Your task to perform on an android device: Show the shopping cart on amazon. Add "jbl charge 4" to the cart on amazon, then select checkout. Image 0: 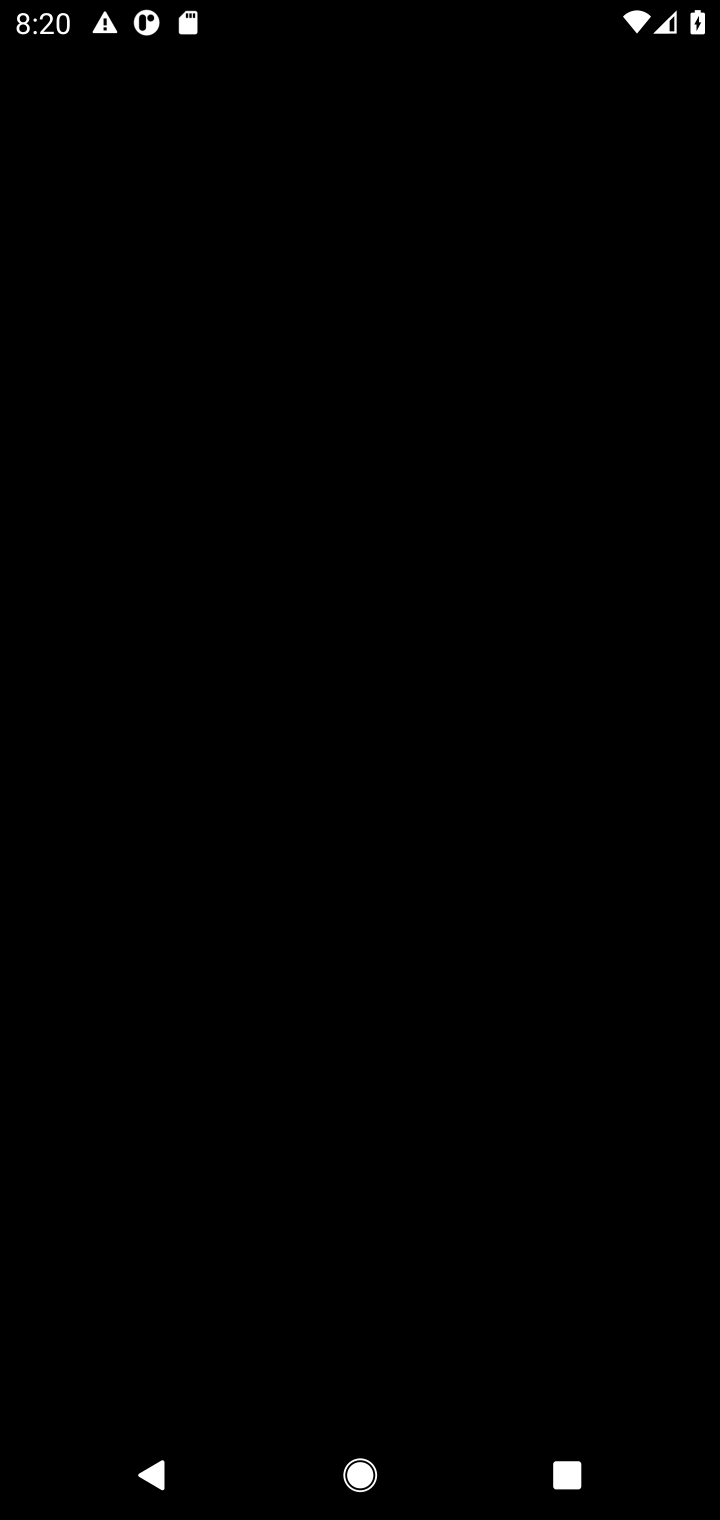
Step 0: press home button
Your task to perform on an android device: Show the shopping cart on amazon. Add "jbl charge 4" to the cart on amazon, then select checkout. Image 1: 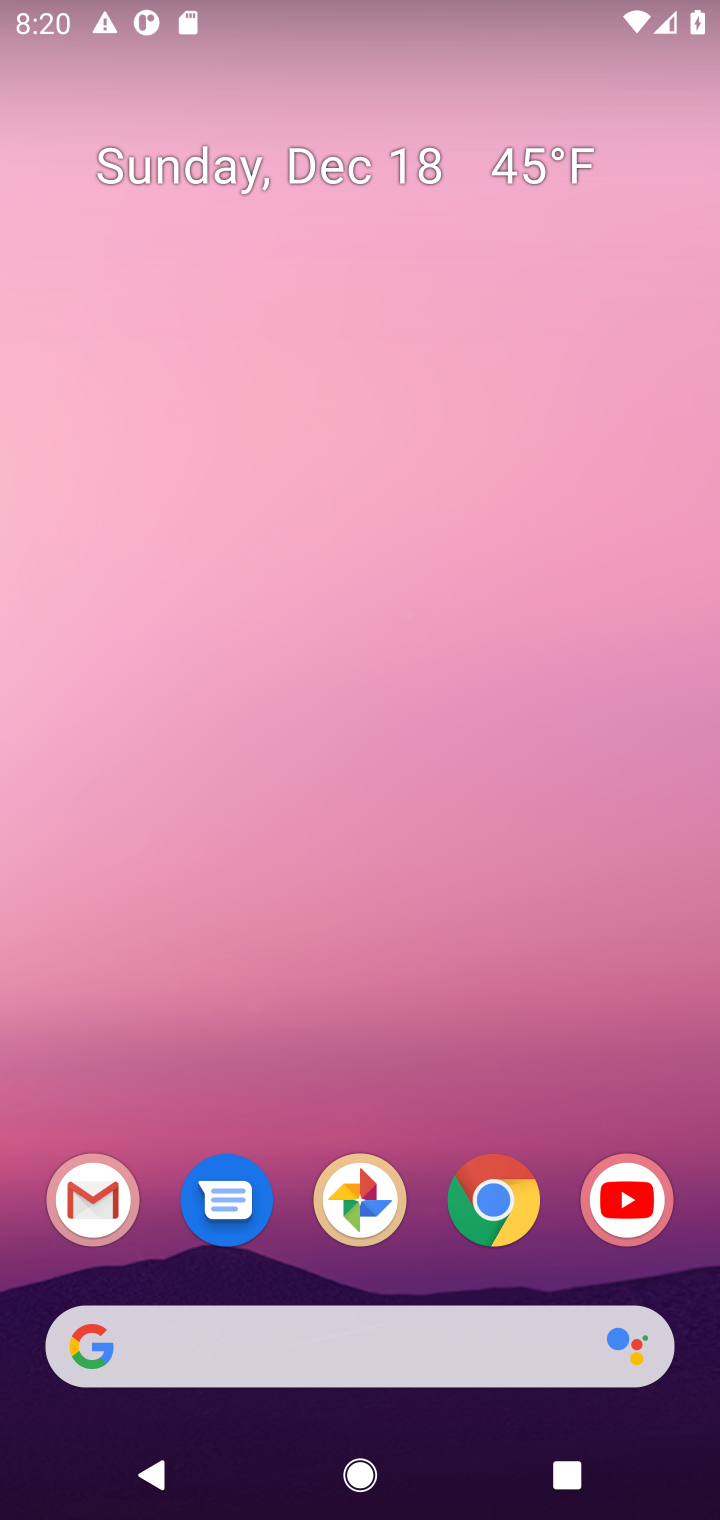
Step 1: click (502, 1210)
Your task to perform on an android device: Show the shopping cart on amazon. Add "jbl charge 4" to the cart on amazon, then select checkout. Image 2: 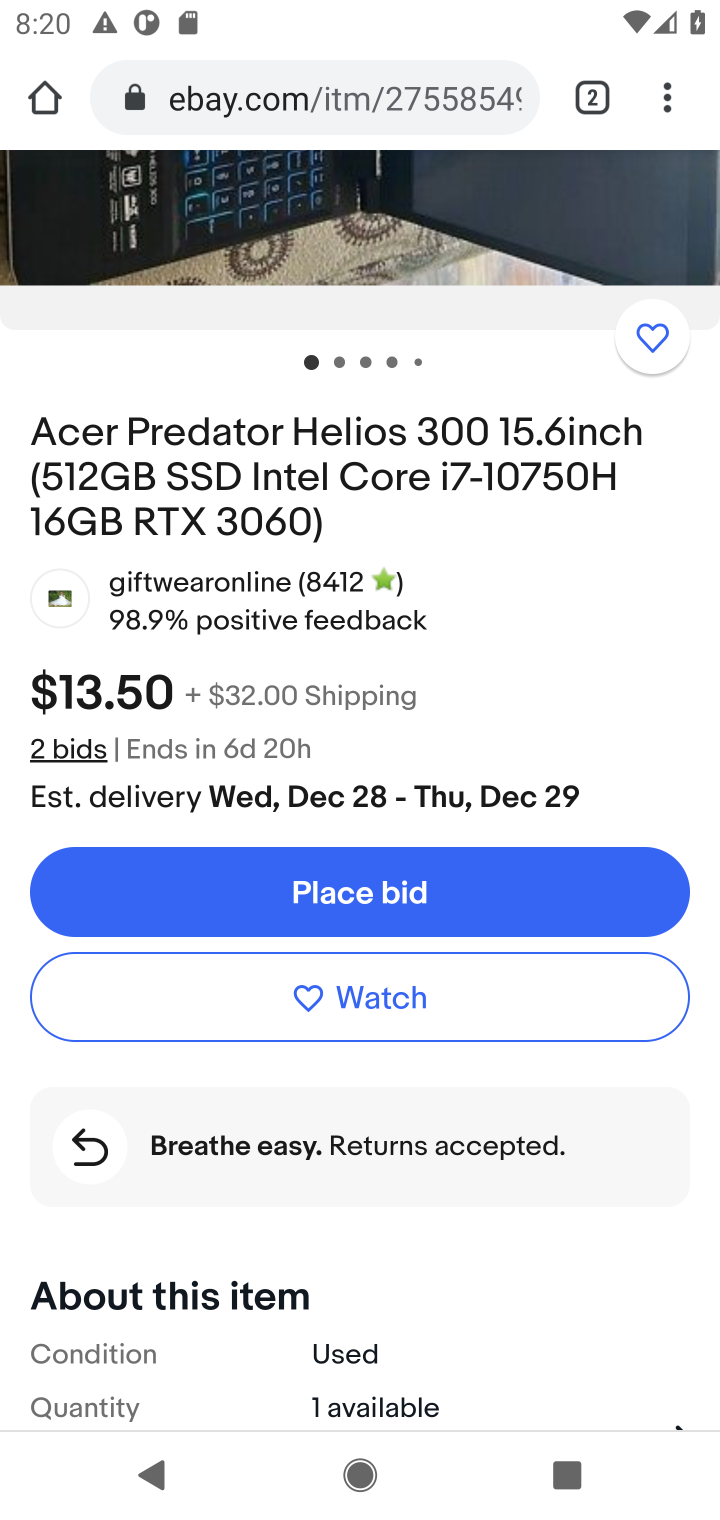
Step 2: click (291, 96)
Your task to perform on an android device: Show the shopping cart on amazon. Add "jbl charge 4" to the cart on amazon, then select checkout. Image 3: 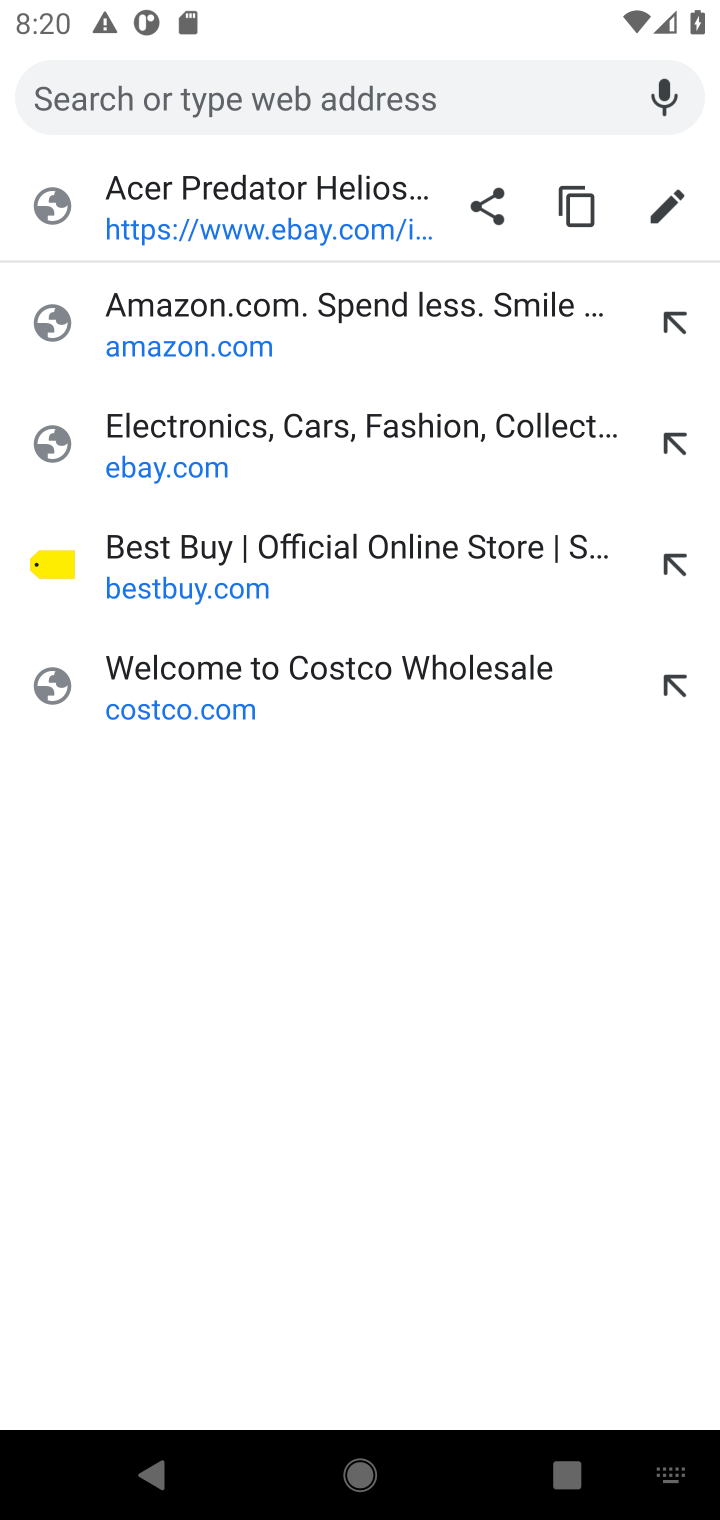
Step 3: click (177, 343)
Your task to perform on an android device: Show the shopping cart on amazon. Add "jbl charge 4" to the cart on amazon, then select checkout. Image 4: 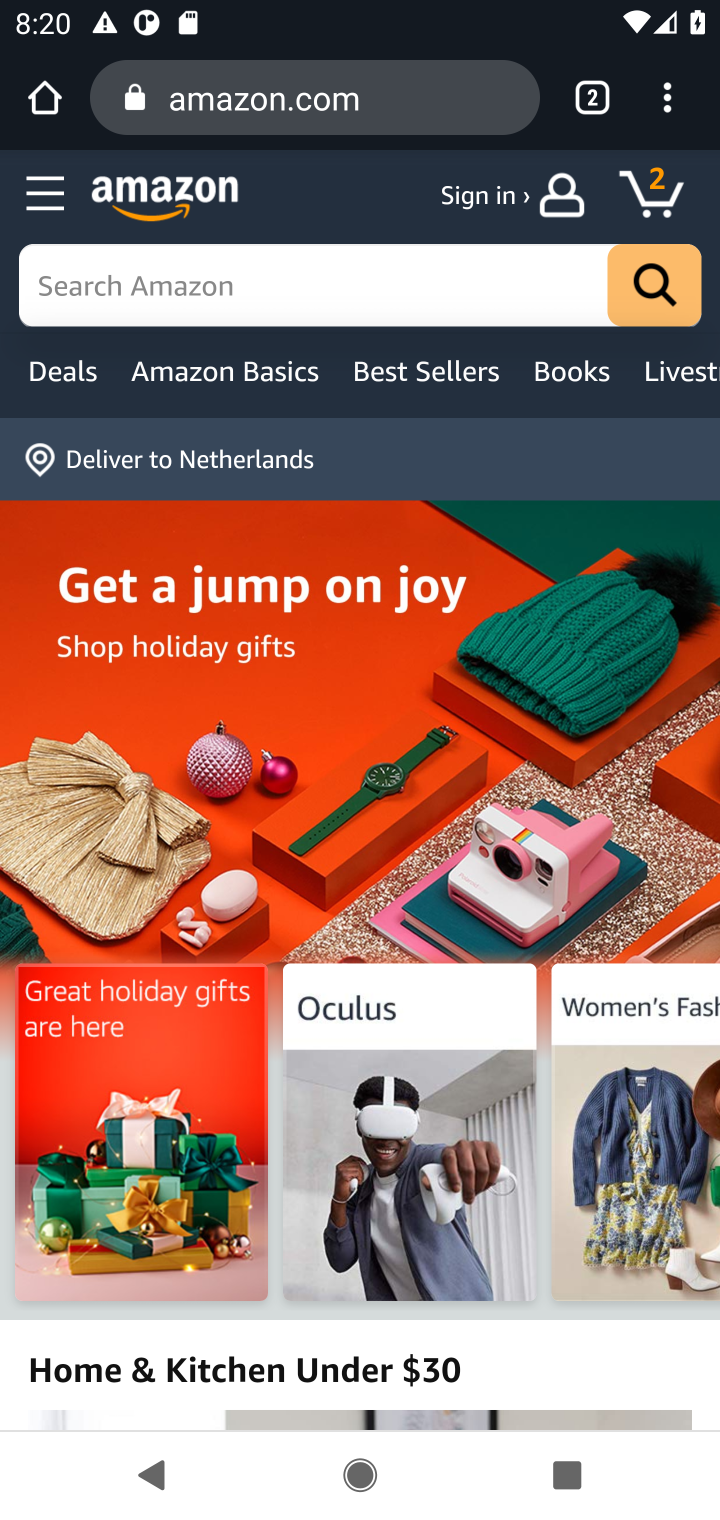
Step 4: click (660, 182)
Your task to perform on an android device: Show the shopping cart on amazon. Add "jbl charge 4" to the cart on amazon, then select checkout. Image 5: 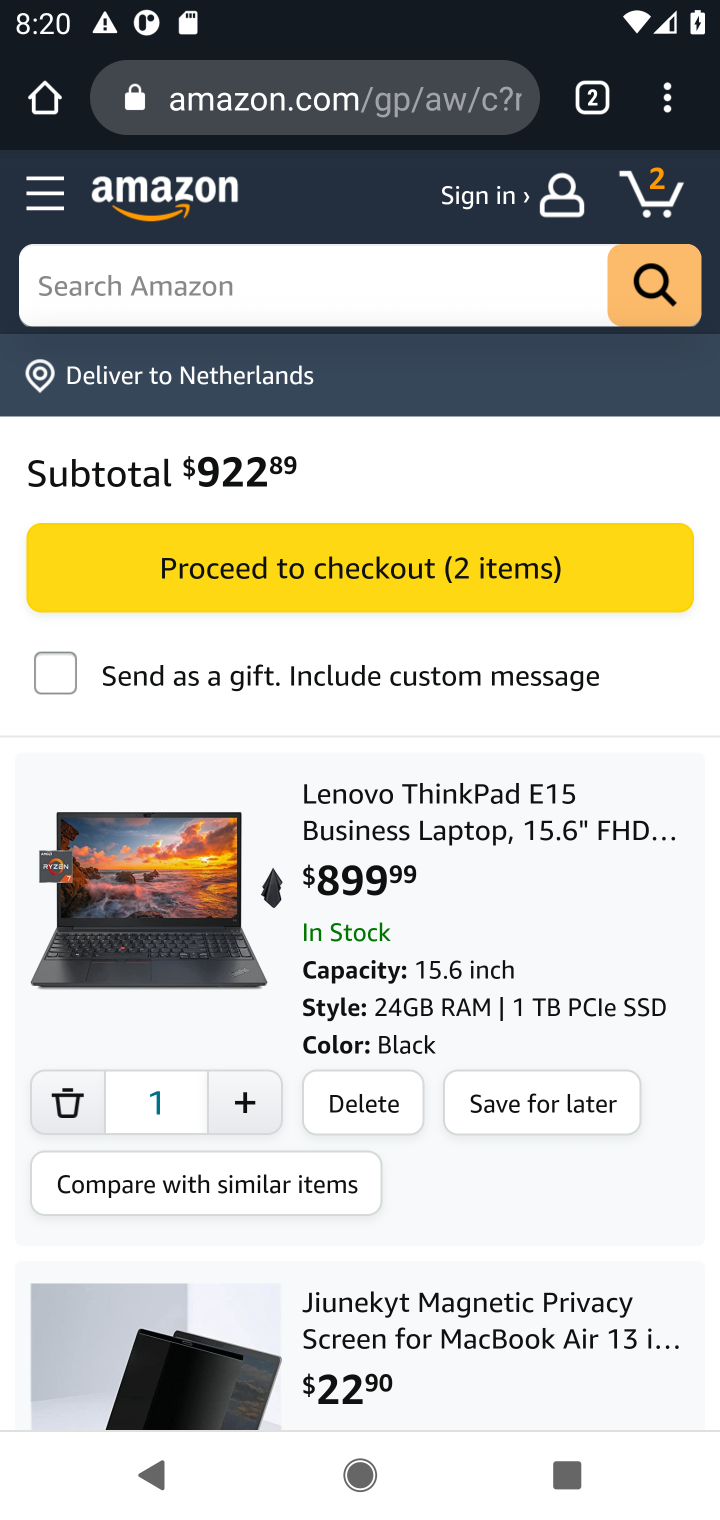
Step 5: click (131, 291)
Your task to perform on an android device: Show the shopping cart on amazon. Add "jbl charge 4" to the cart on amazon, then select checkout. Image 6: 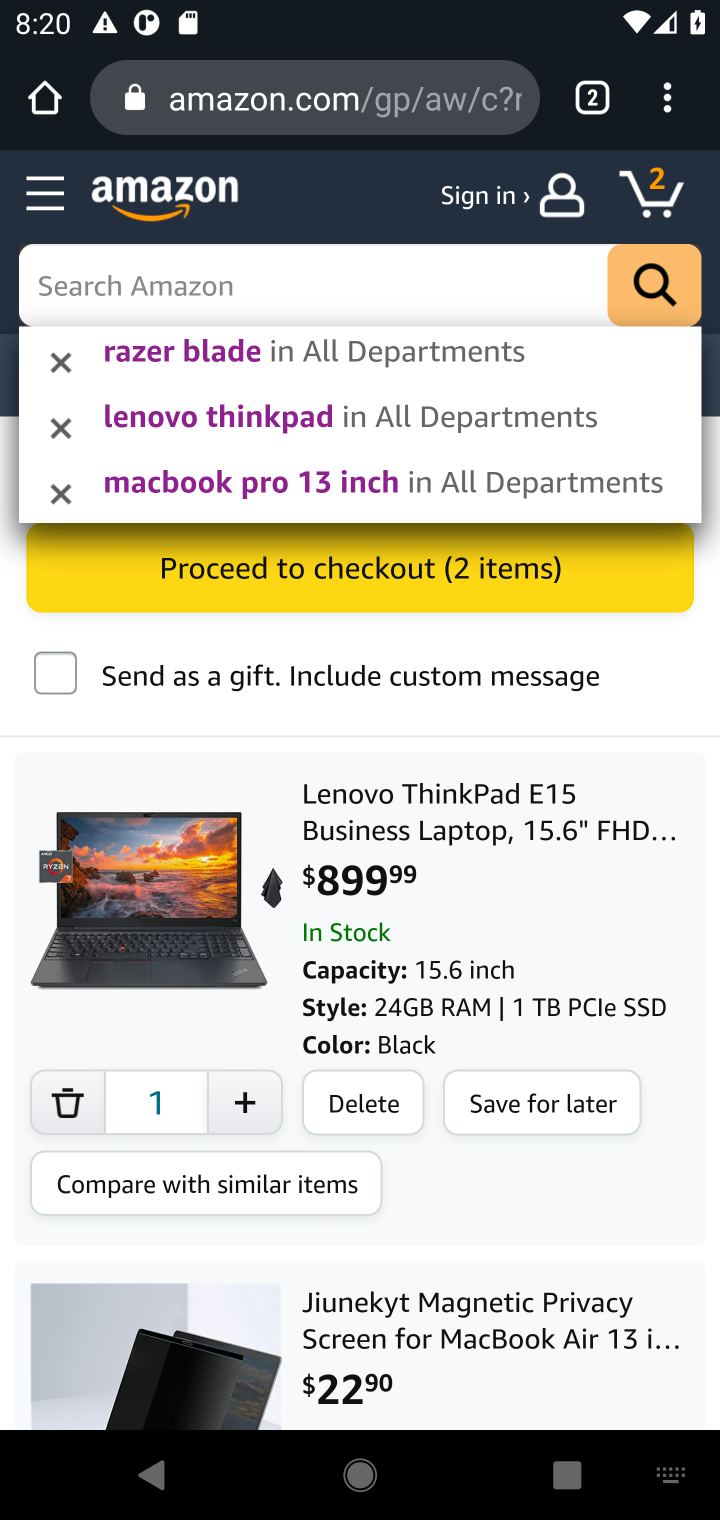
Step 6: type "jbl charge 4"
Your task to perform on an android device: Show the shopping cart on amazon. Add "jbl charge 4" to the cart on amazon, then select checkout. Image 7: 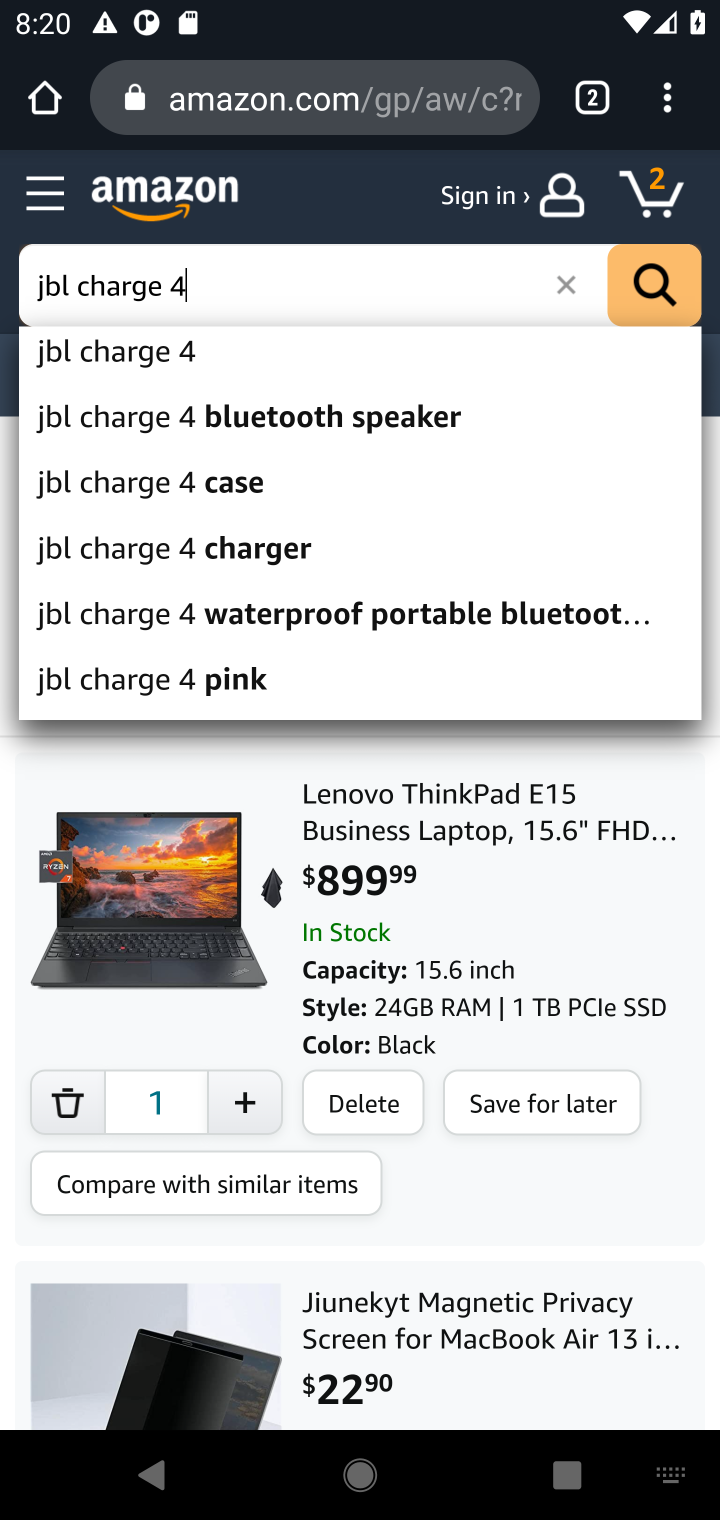
Step 7: click (101, 366)
Your task to perform on an android device: Show the shopping cart on amazon. Add "jbl charge 4" to the cart on amazon, then select checkout. Image 8: 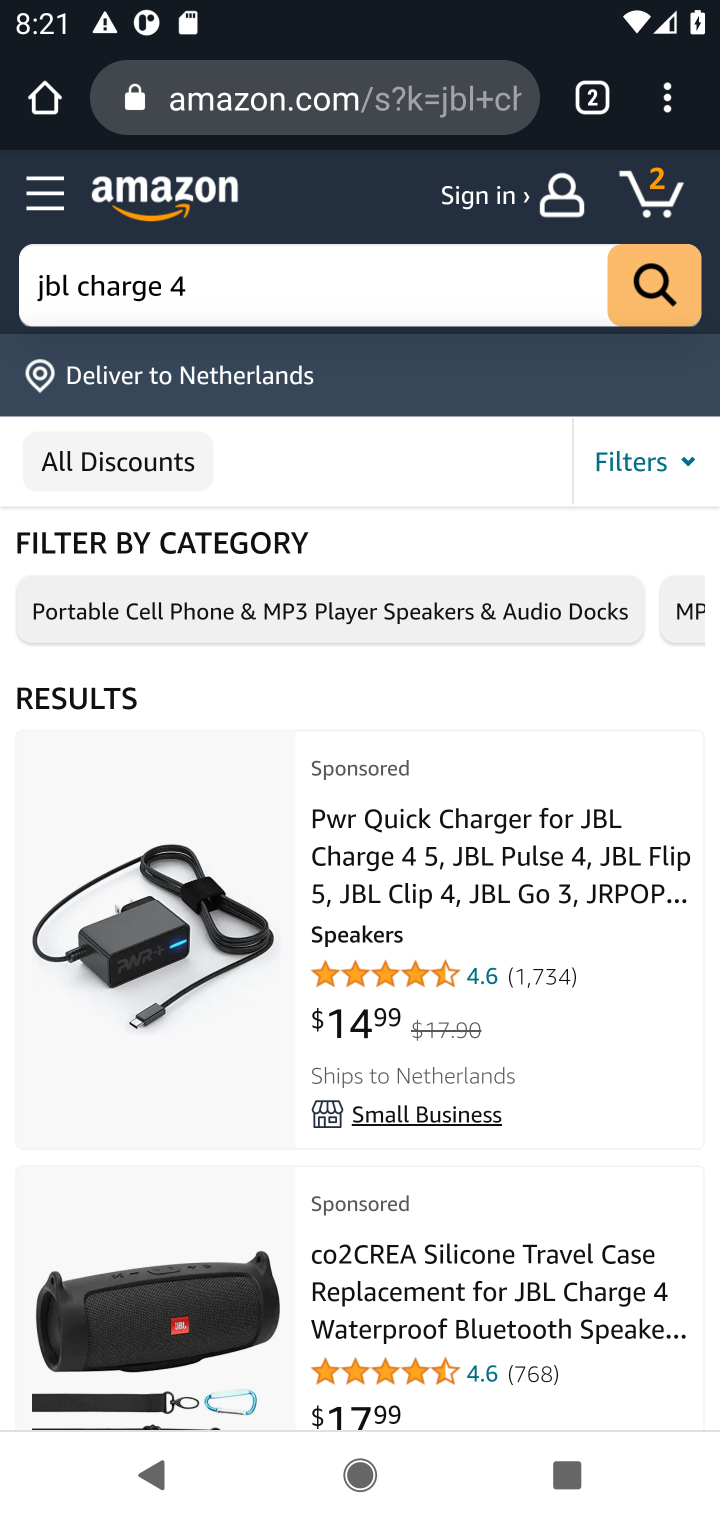
Step 8: click (342, 889)
Your task to perform on an android device: Show the shopping cart on amazon. Add "jbl charge 4" to the cart on amazon, then select checkout. Image 9: 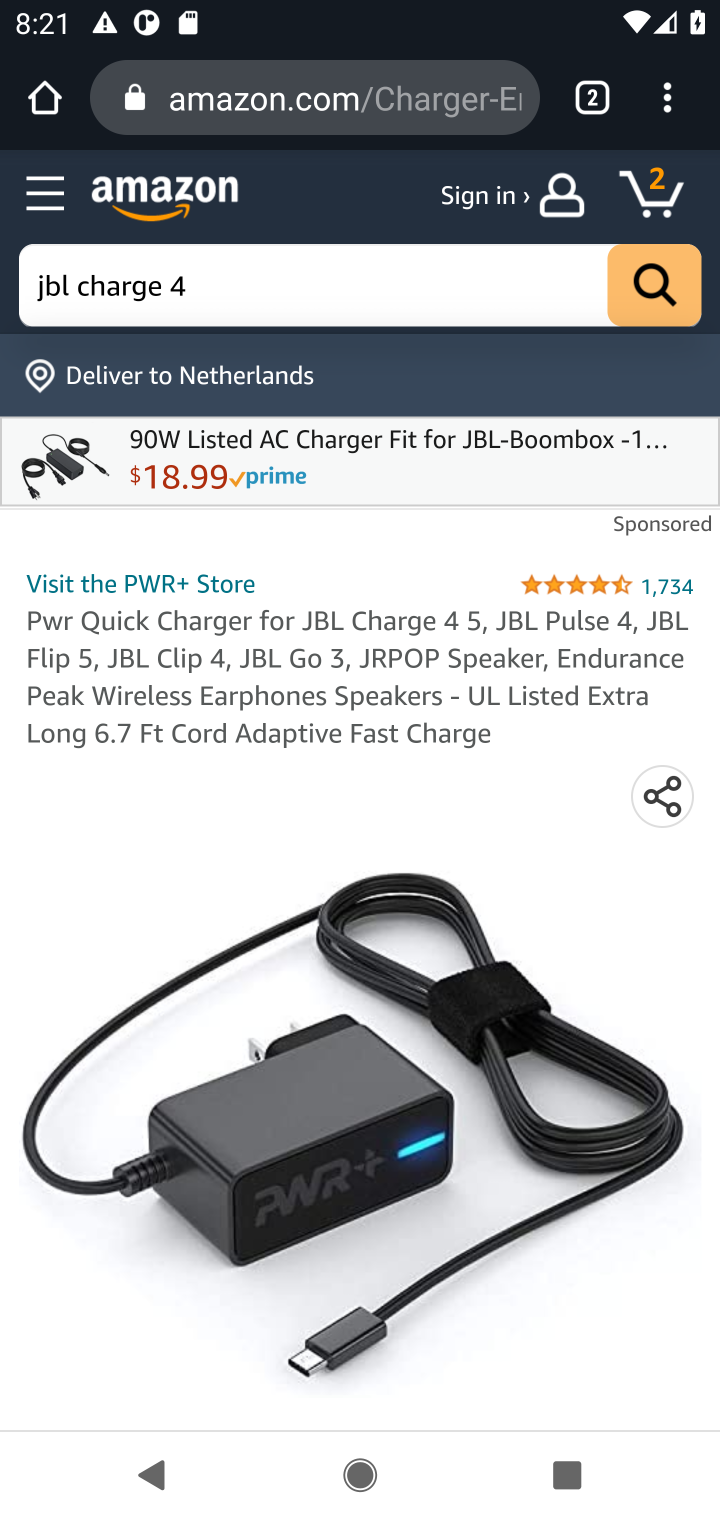
Step 9: drag from (383, 1138) to (389, 354)
Your task to perform on an android device: Show the shopping cart on amazon. Add "jbl charge 4" to the cart on amazon, then select checkout. Image 10: 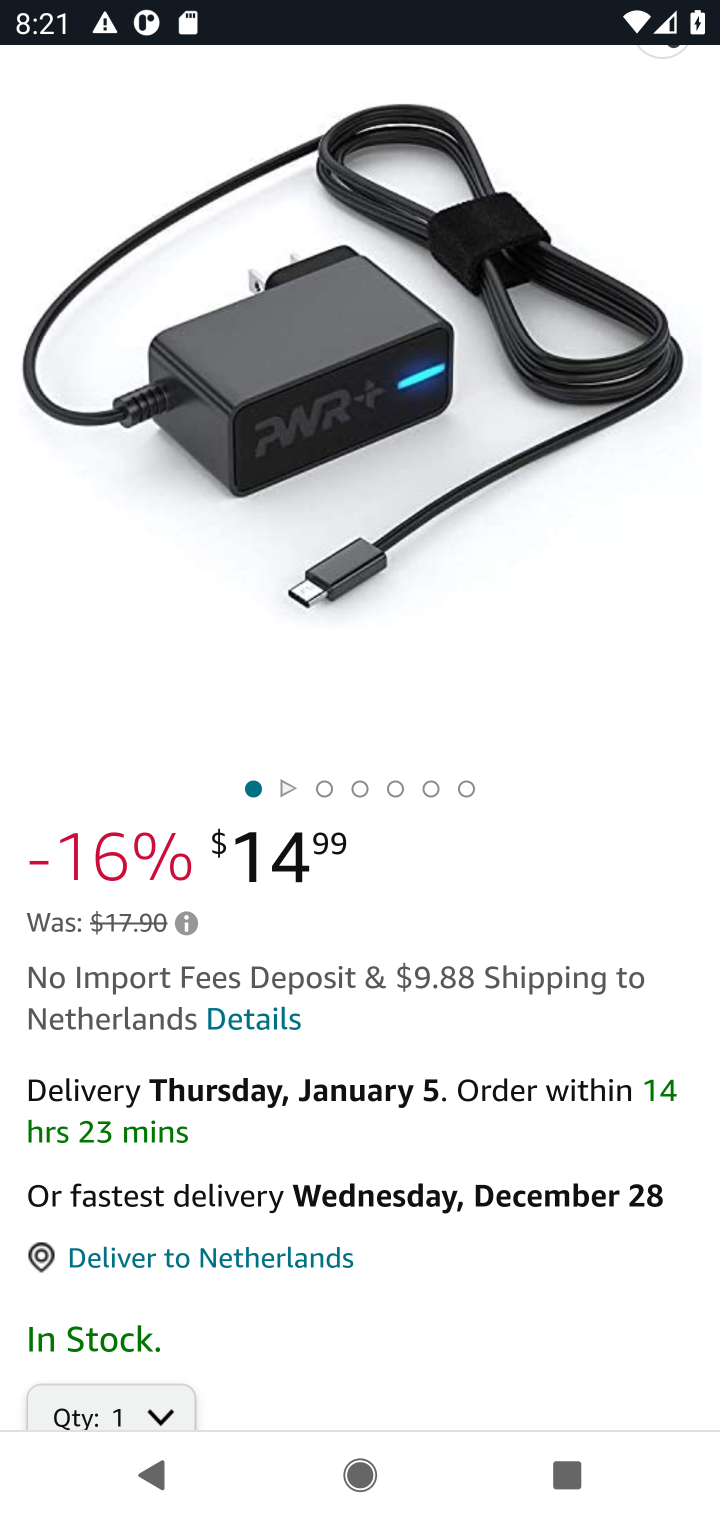
Step 10: drag from (340, 979) to (354, 382)
Your task to perform on an android device: Show the shopping cart on amazon. Add "jbl charge 4" to the cart on amazon, then select checkout. Image 11: 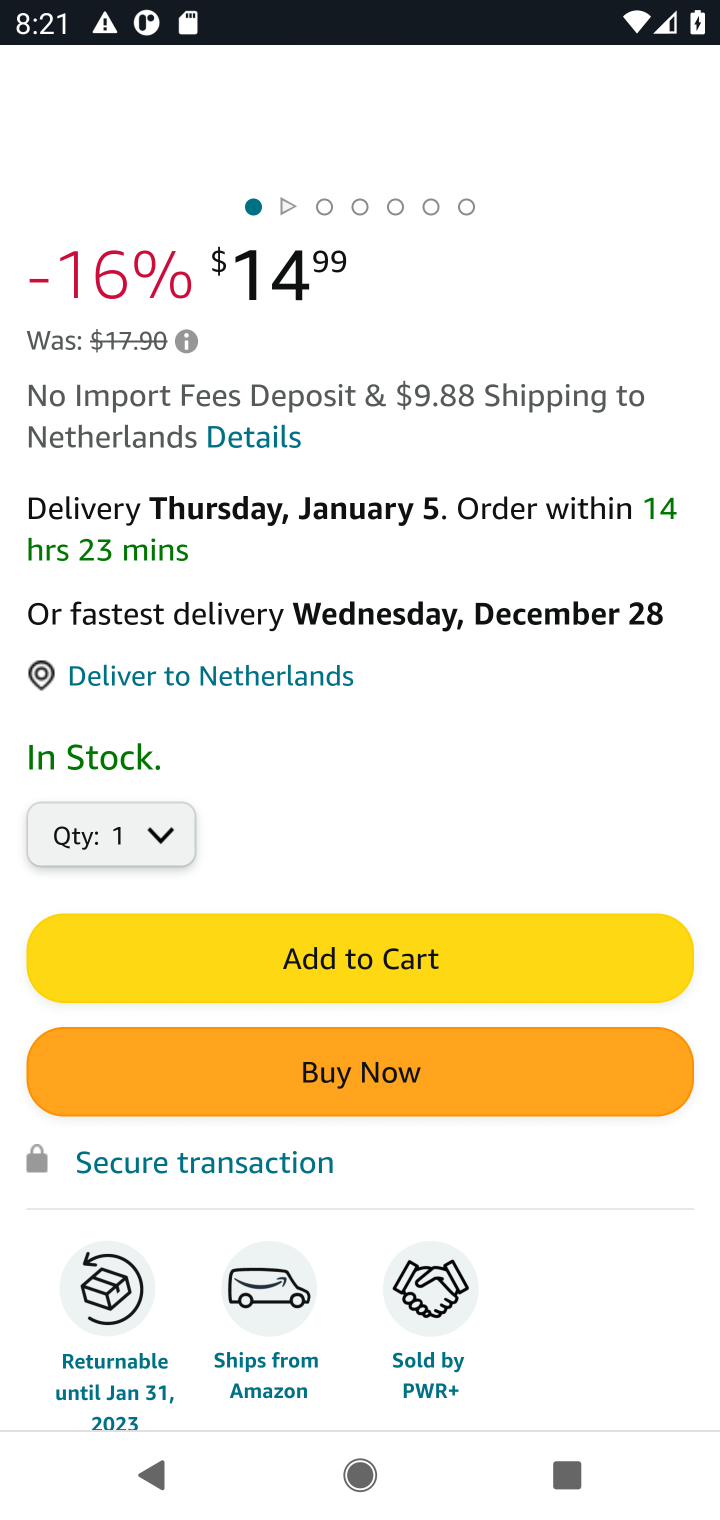
Step 11: click (356, 945)
Your task to perform on an android device: Show the shopping cart on amazon. Add "jbl charge 4" to the cart on amazon, then select checkout. Image 12: 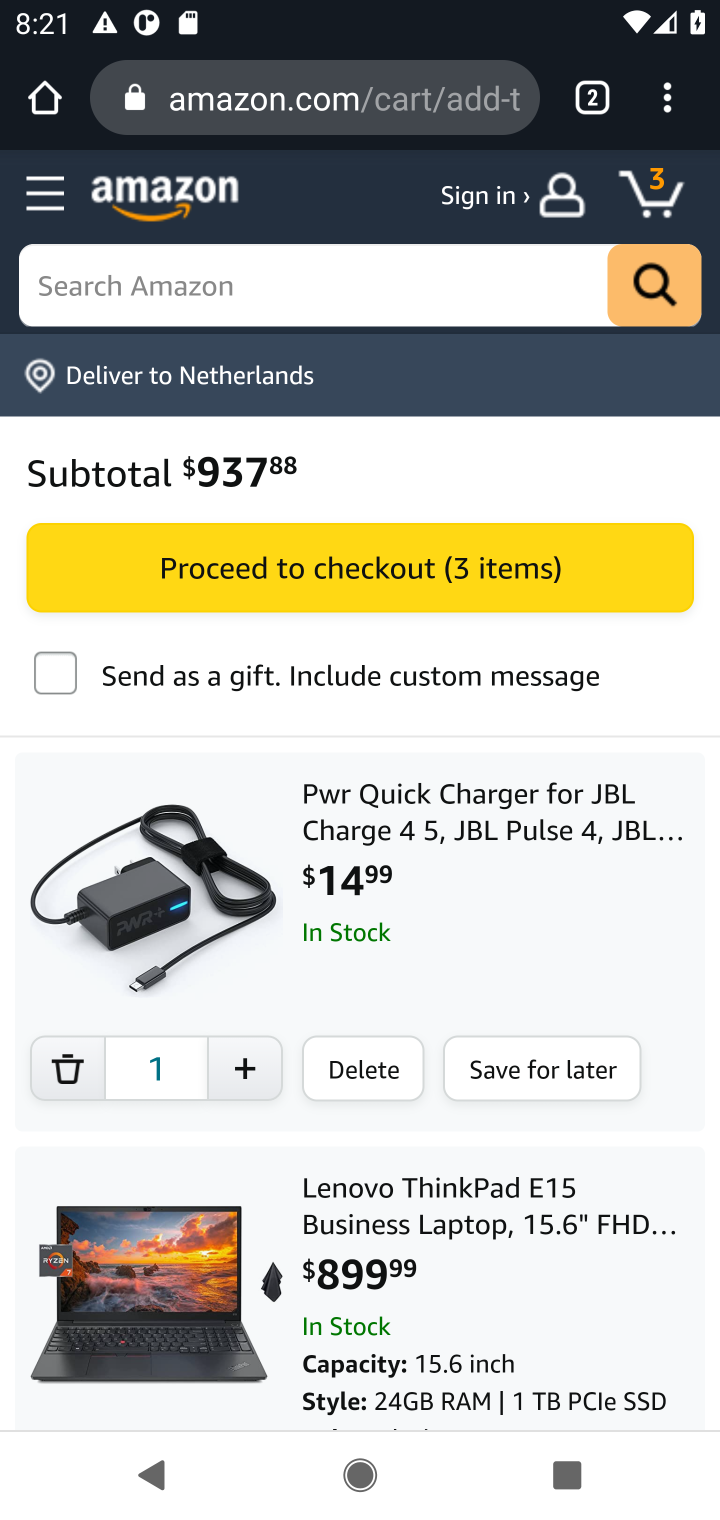
Step 12: click (332, 575)
Your task to perform on an android device: Show the shopping cart on amazon. Add "jbl charge 4" to the cart on amazon, then select checkout. Image 13: 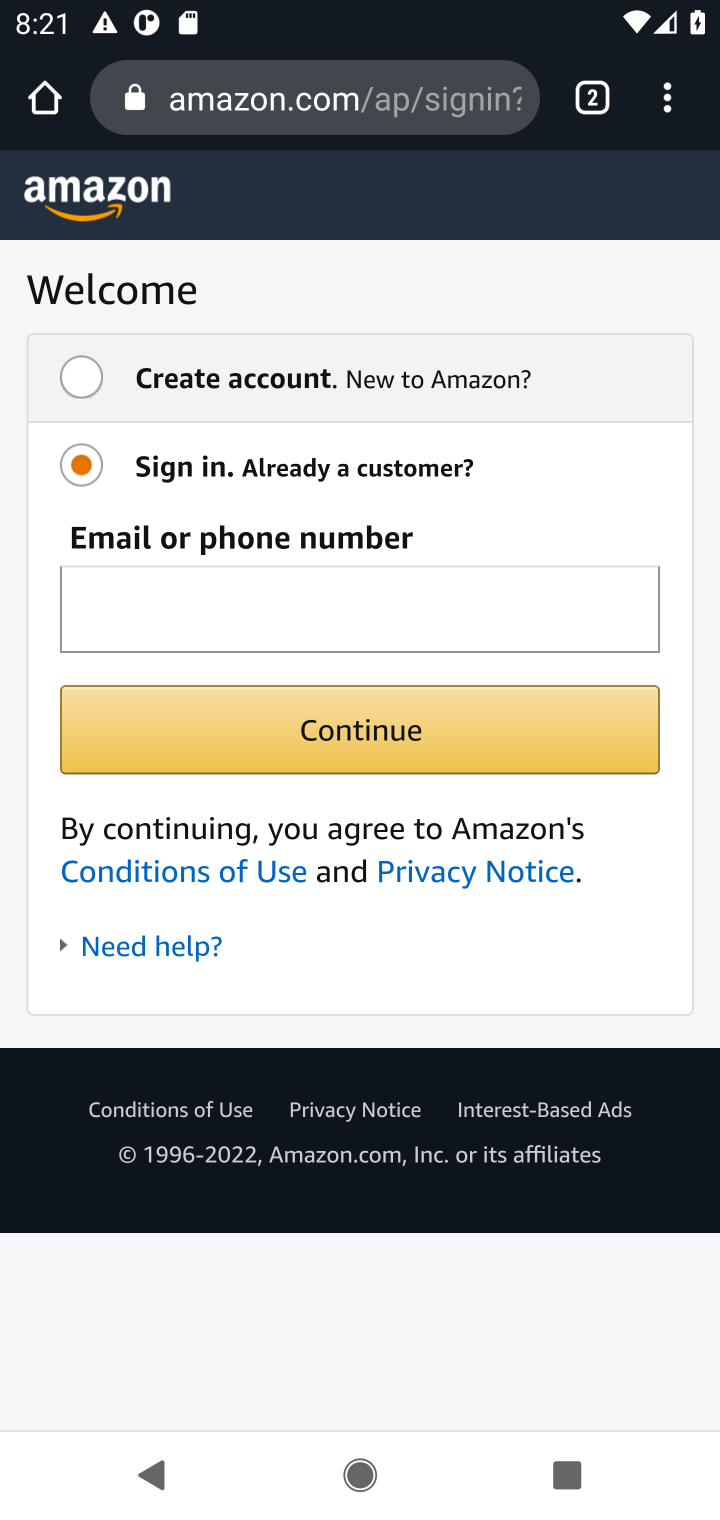
Step 13: task complete